Your task to perform on an android device: toggle wifi Image 0: 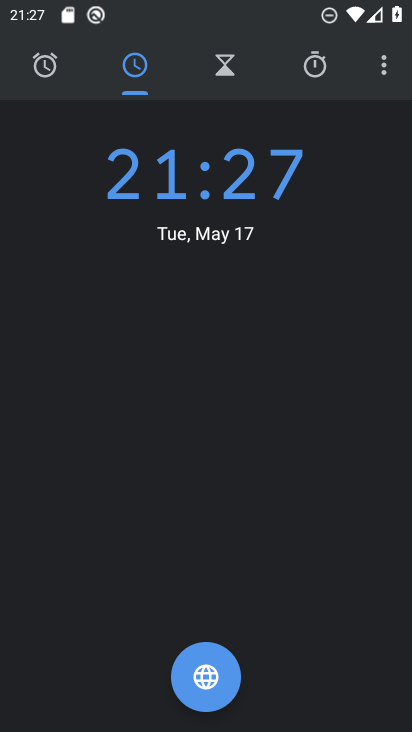
Step 0: press home button
Your task to perform on an android device: toggle wifi Image 1: 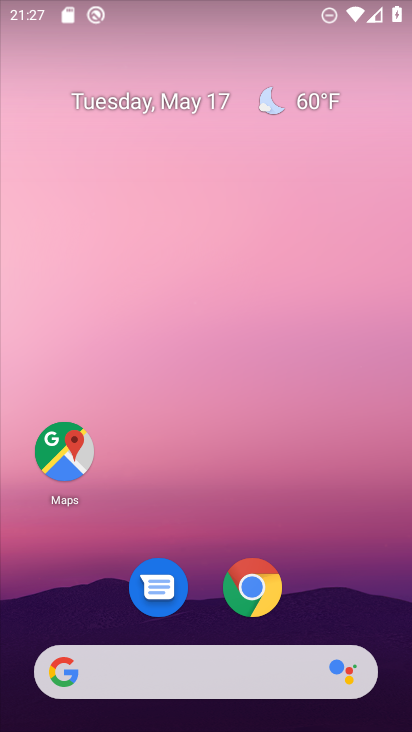
Step 1: drag from (180, 17) to (297, 271)
Your task to perform on an android device: toggle wifi Image 2: 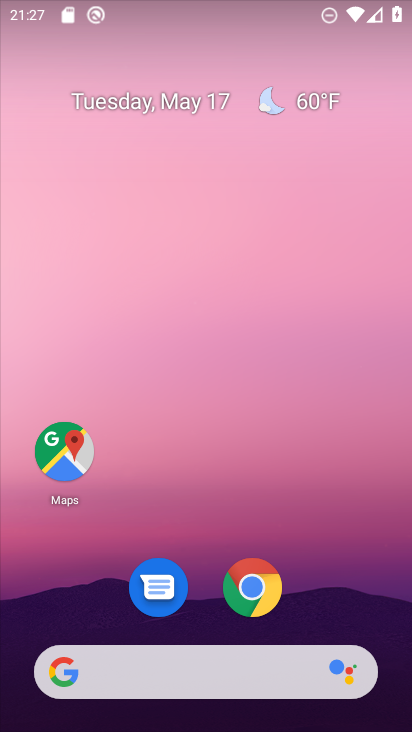
Step 2: drag from (334, 485) to (189, 4)
Your task to perform on an android device: toggle wifi Image 3: 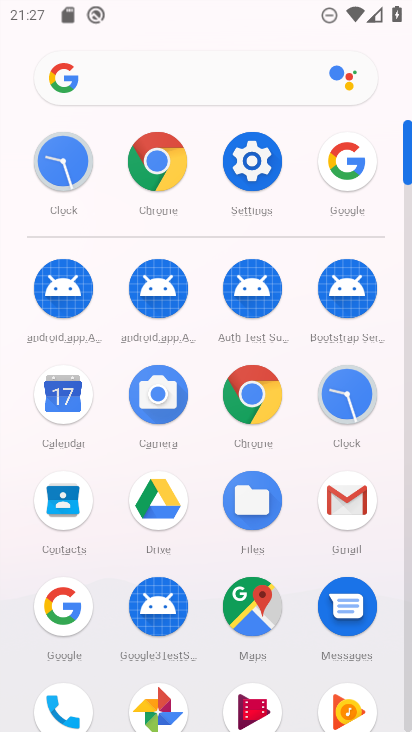
Step 3: click (251, 153)
Your task to perform on an android device: toggle wifi Image 4: 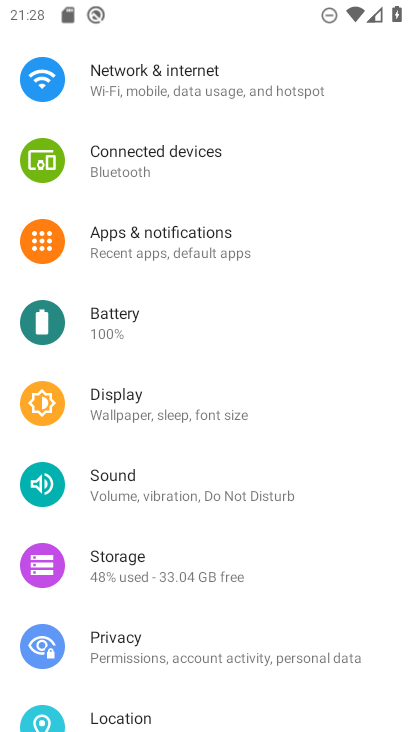
Step 4: click (131, 93)
Your task to perform on an android device: toggle wifi Image 5: 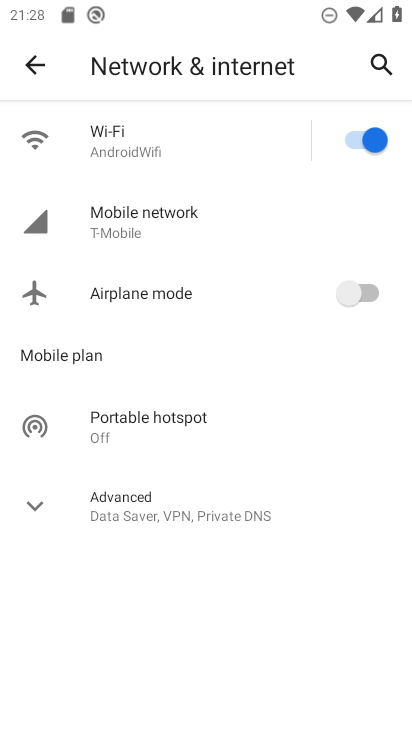
Step 5: click (370, 140)
Your task to perform on an android device: toggle wifi Image 6: 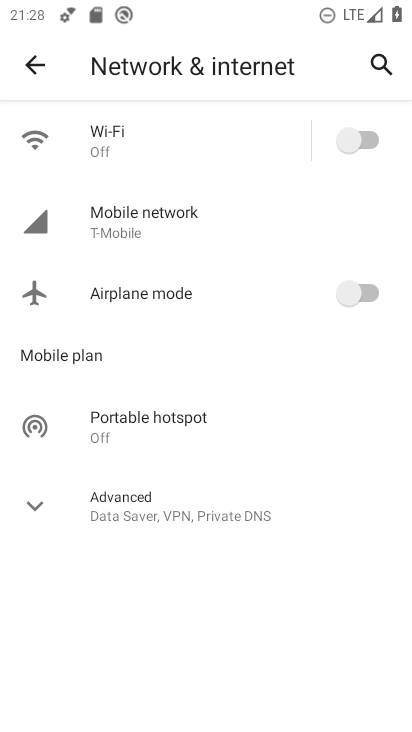
Step 6: task complete